Your task to perform on an android device: Go to ESPN.com Image 0: 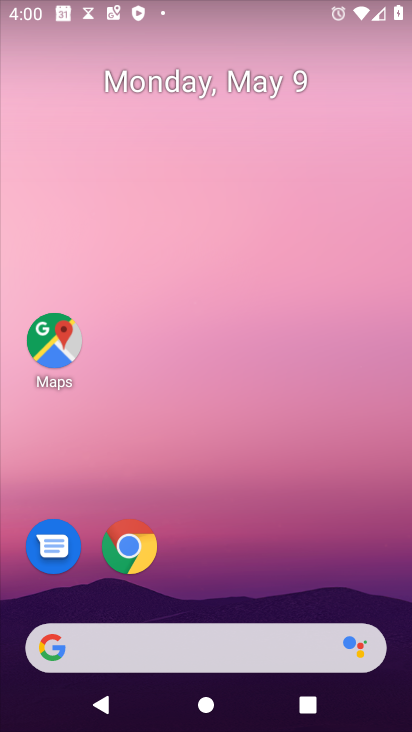
Step 0: drag from (239, 463) to (164, 74)
Your task to perform on an android device: Go to ESPN.com Image 1: 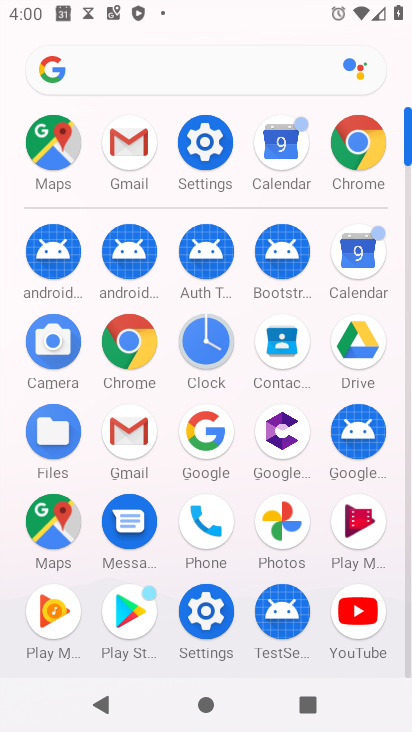
Step 1: click (365, 149)
Your task to perform on an android device: Go to ESPN.com Image 2: 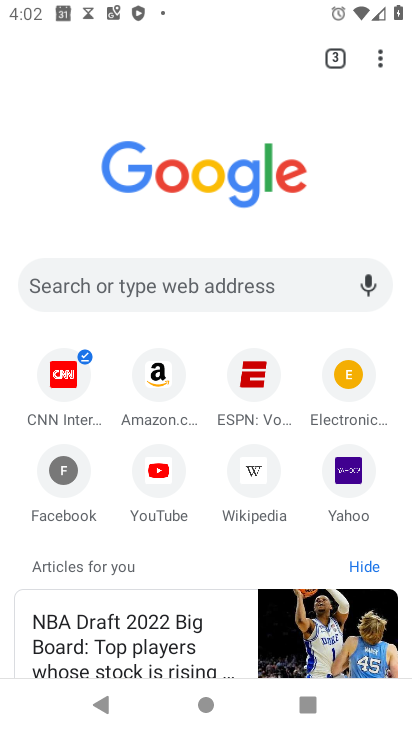
Step 2: click (245, 416)
Your task to perform on an android device: Go to ESPN.com Image 3: 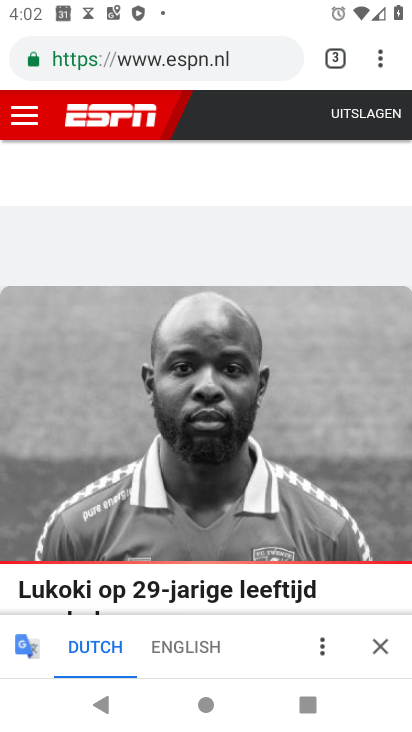
Step 3: task complete